Your task to perform on an android device: Search for seafood restaurants on Google Maps Image 0: 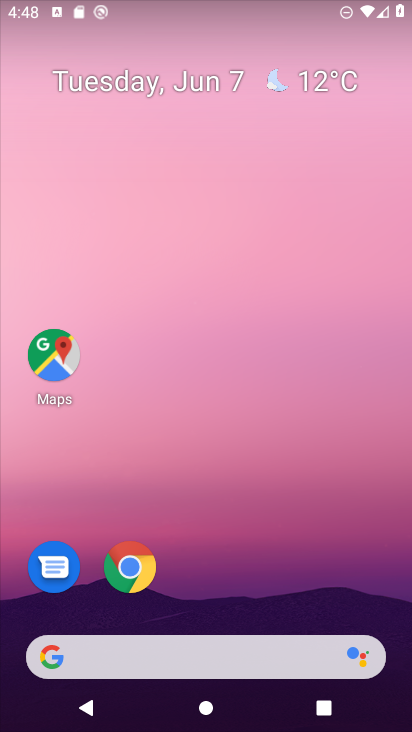
Step 0: drag from (266, 657) to (326, 15)
Your task to perform on an android device: Search for seafood restaurants on Google Maps Image 1: 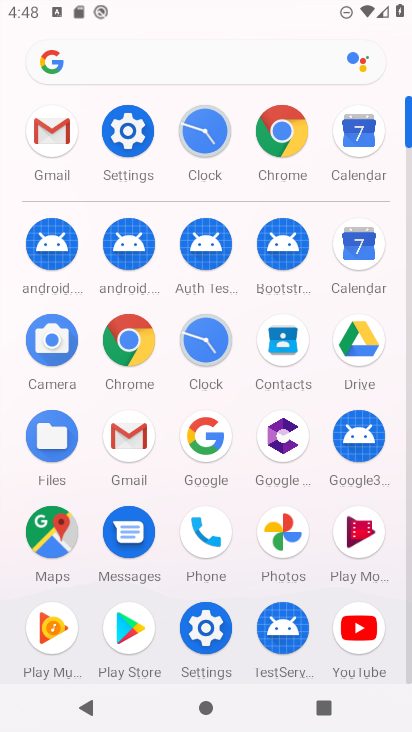
Step 1: click (59, 536)
Your task to perform on an android device: Search for seafood restaurants on Google Maps Image 2: 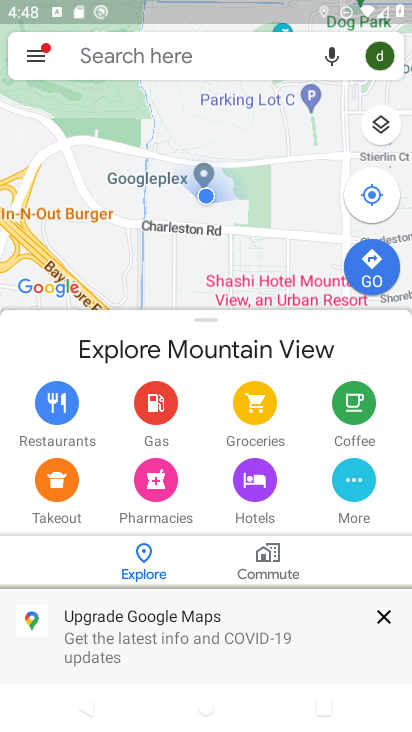
Step 2: click (226, 61)
Your task to perform on an android device: Search for seafood restaurants on Google Maps Image 3: 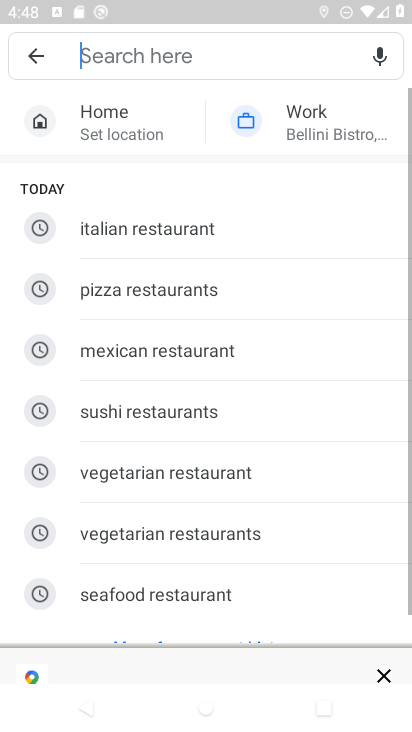
Step 3: click (225, 61)
Your task to perform on an android device: Search for seafood restaurants on Google Maps Image 4: 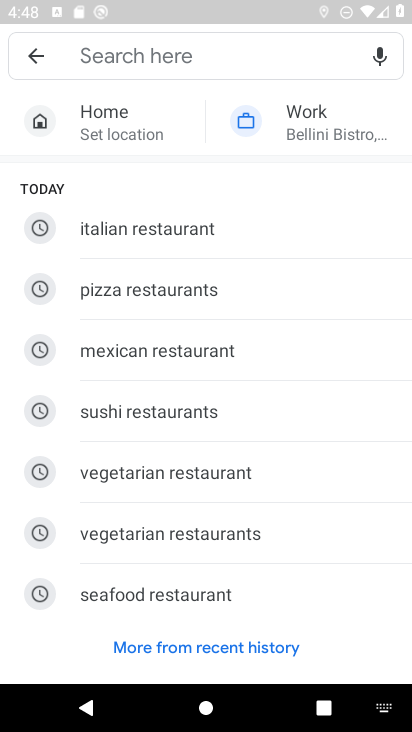
Step 4: click (184, 596)
Your task to perform on an android device: Search for seafood restaurants on Google Maps Image 5: 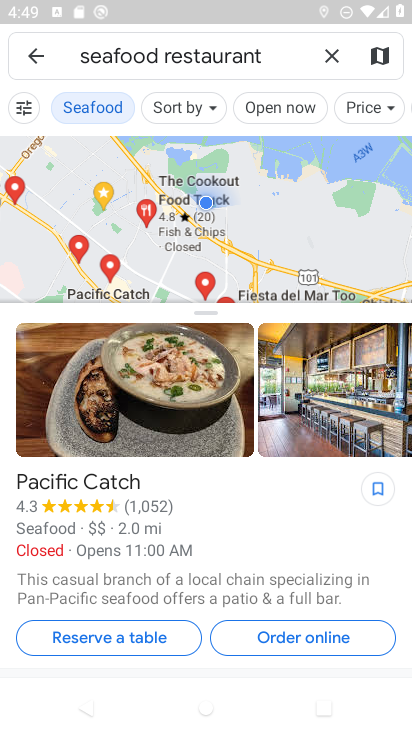
Step 5: task complete